Your task to perform on an android device: What's on my calendar tomorrow? Image 0: 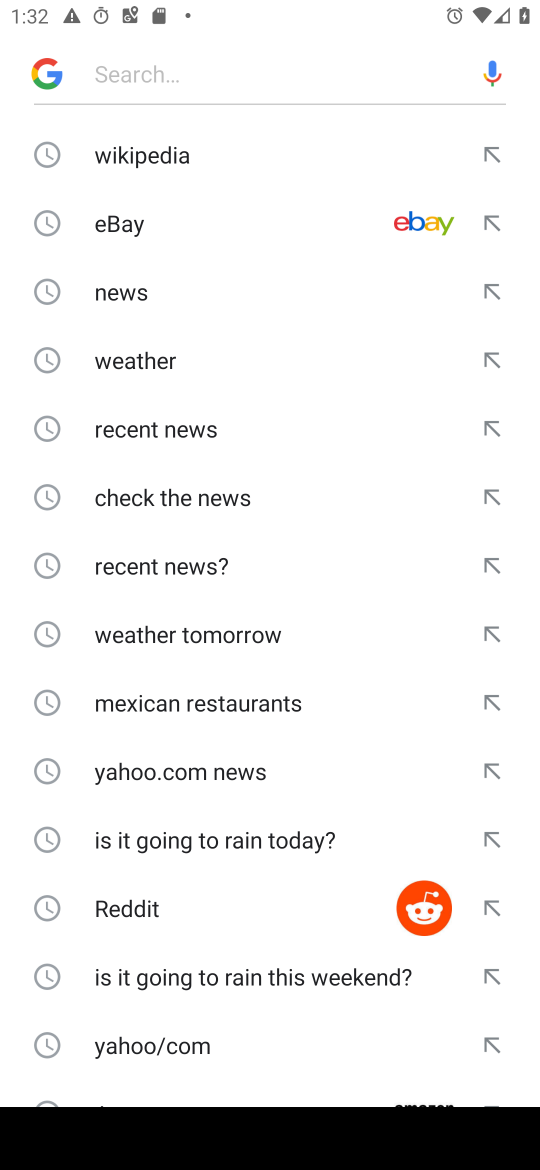
Step 0: press home button
Your task to perform on an android device: What's on my calendar tomorrow? Image 1: 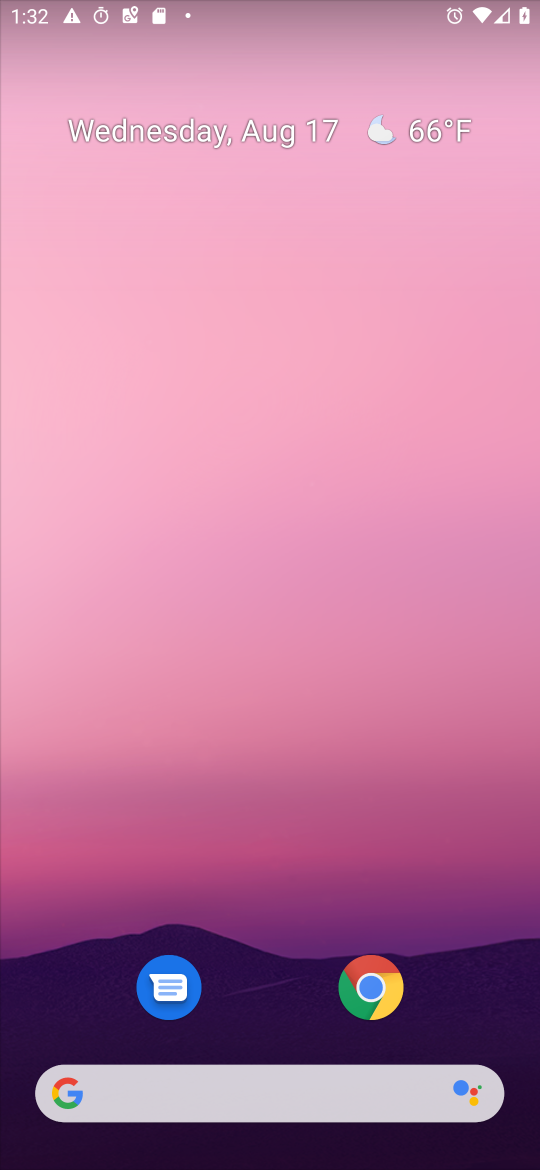
Step 1: drag from (35, 1141) to (388, 143)
Your task to perform on an android device: What's on my calendar tomorrow? Image 2: 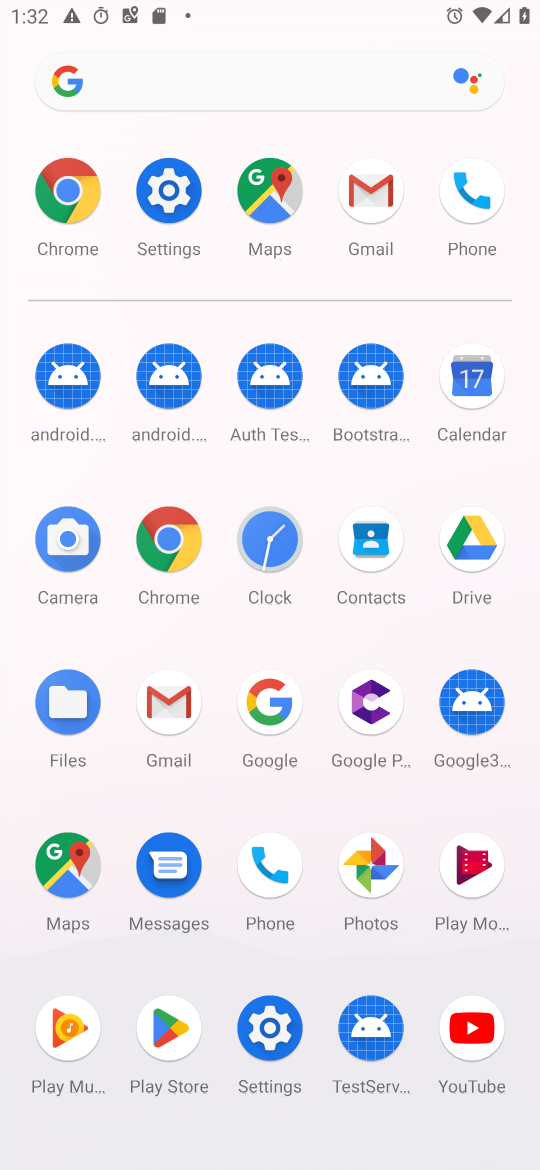
Step 2: click (460, 379)
Your task to perform on an android device: What's on my calendar tomorrow? Image 3: 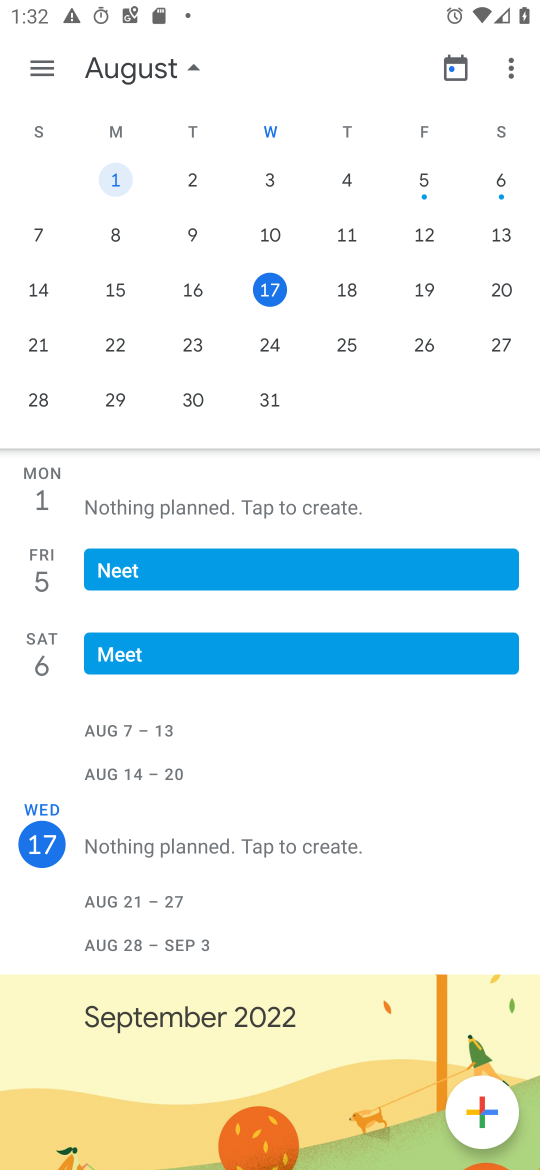
Step 3: drag from (27, 192) to (368, 148)
Your task to perform on an android device: What's on my calendar tomorrow? Image 4: 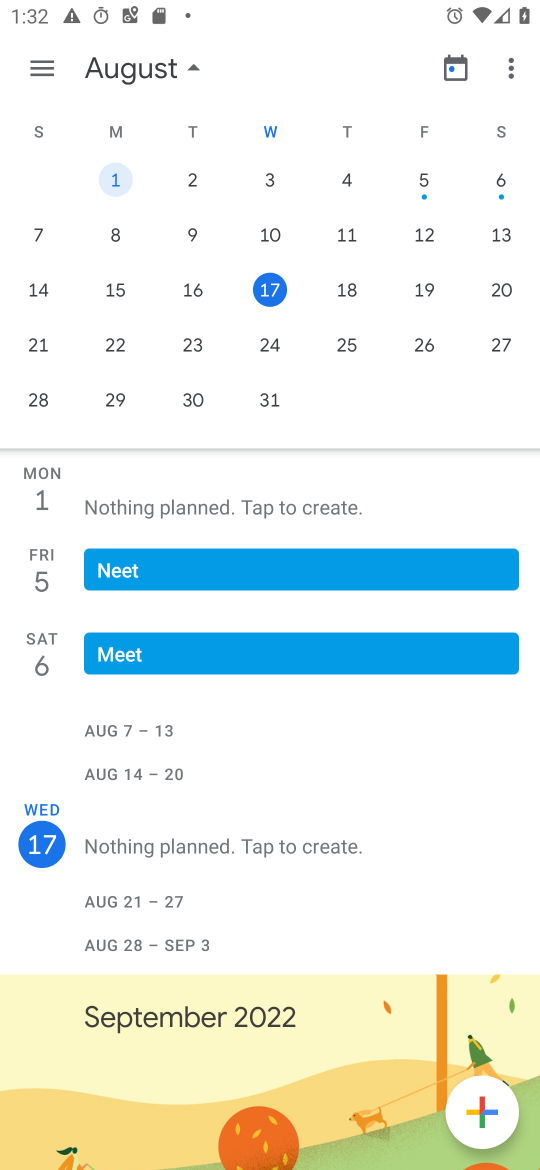
Step 4: drag from (17, 179) to (532, 626)
Your task to perform on an android device: What's on my calendar tomorrow? Image 5: 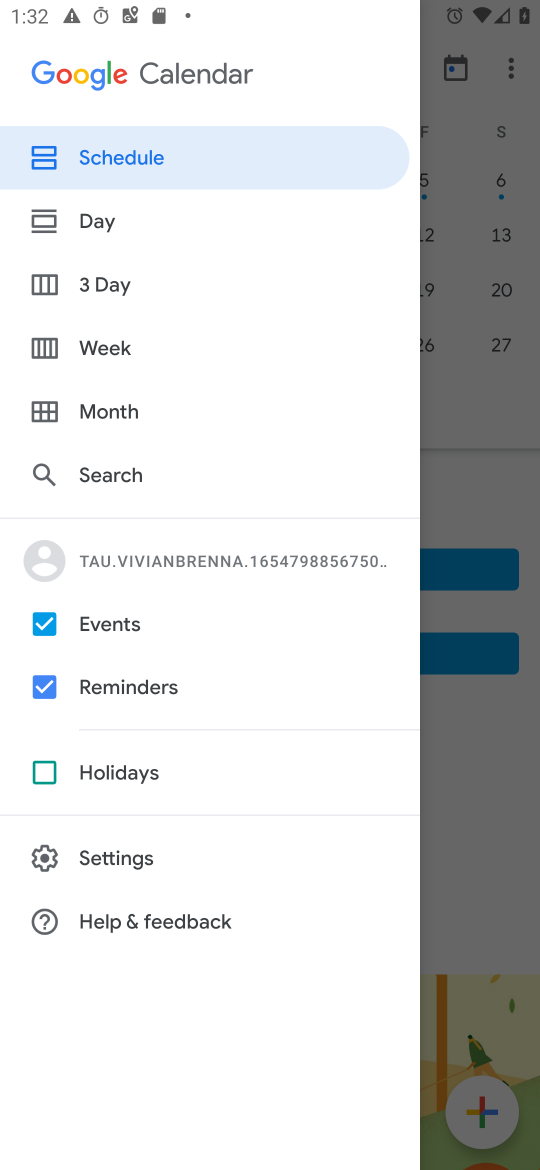
Step 5: click (470, 700)
Your task to perform on an android device: What's on my calendar tomorrow? Image 6: 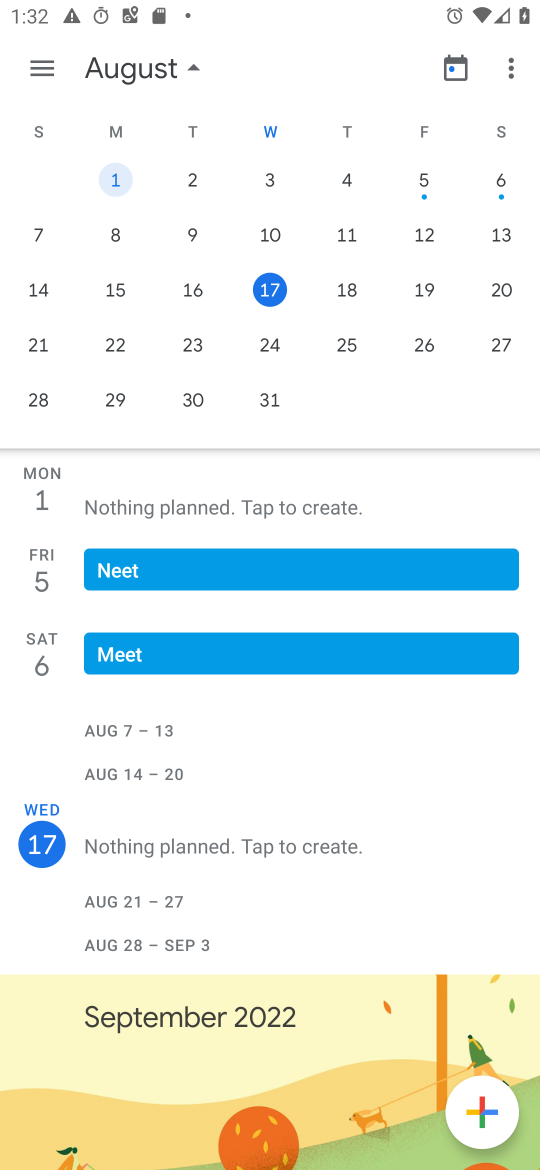
Step 6: click (42, 174)
Your task to perform on an android device: What's on my calendar tomorrow? Image 7: 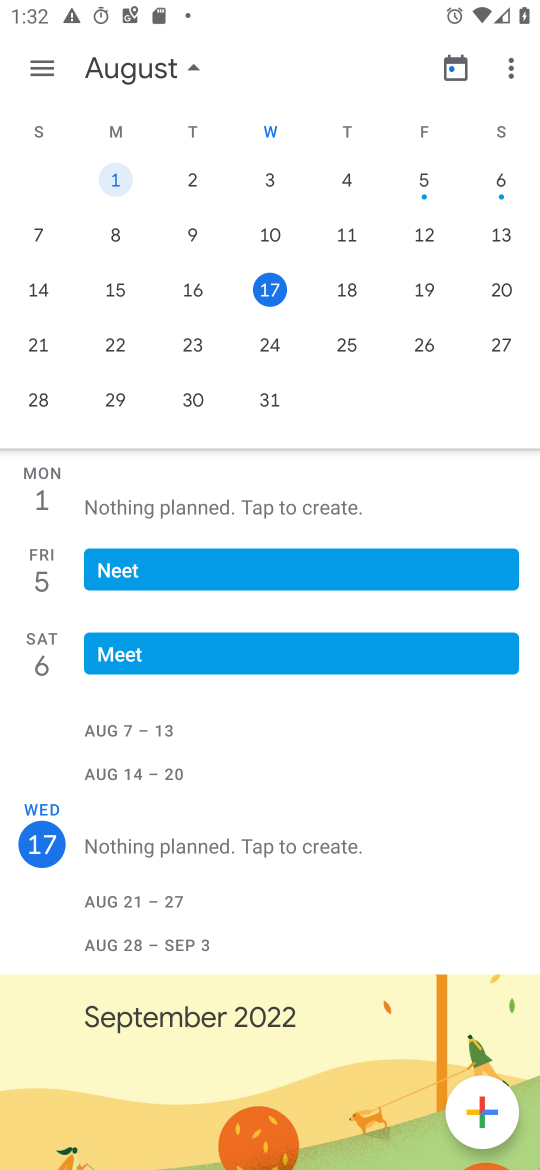
Step 7: task complete